Your task to perform on an android device: turn off data saver in the chrome app Image 0: 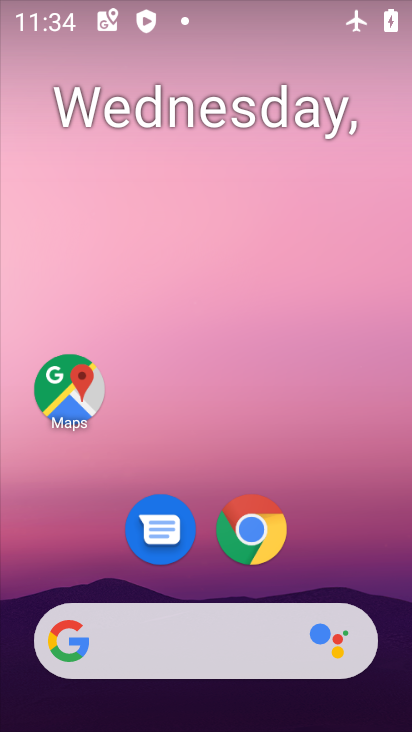
Step 0: click (233, 533)
Your task to perform on an android device: turn off data saver in the chrome app Image 1: 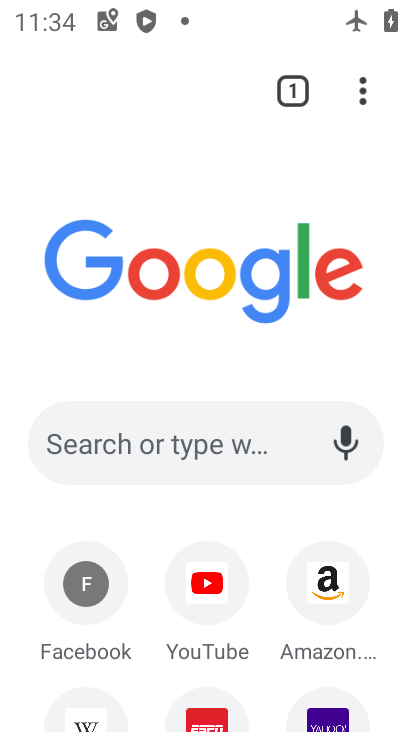
Step 1: click (364, 104)
Your task to perform on an android device: turn off data saver in the chrome app Image 2: 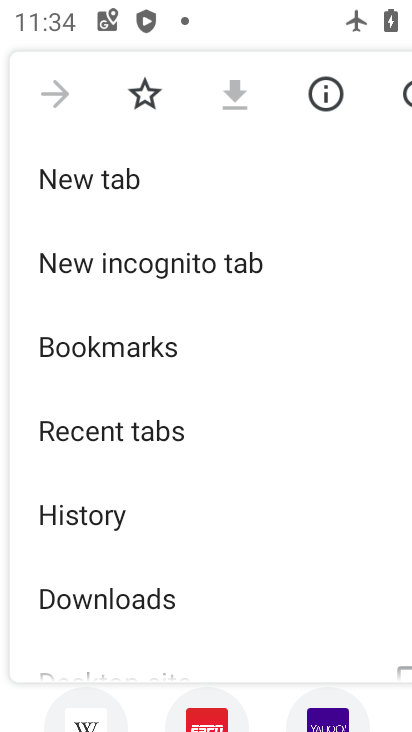
Step 2: drag from (227, 507) to (169, 120)
Your task to perform on an android device: turn off data saver in the chrome app Image 3: 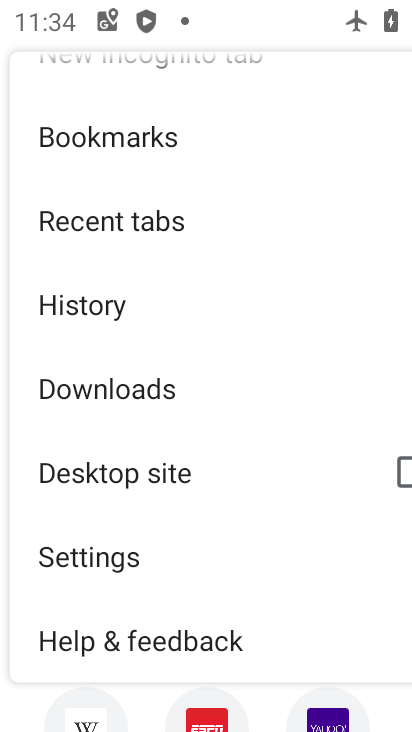
Step 3: click (108, 545)
Your task to perform on an android device: turn off data saver in the chrome app Image 4: 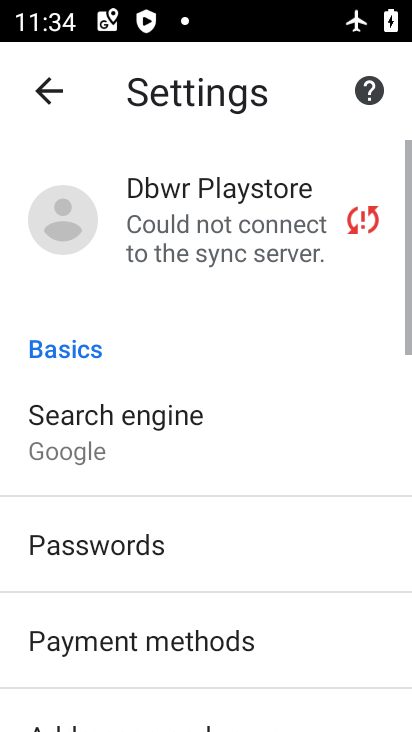
Step 4: drag from (106, 544) to (62, 147)
Your task to perform on an android device: turn off data saver in the chrome app Image 5: 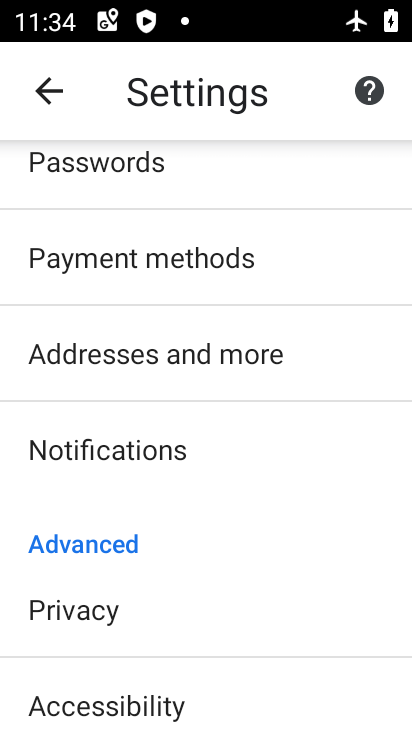
Step 5: drag from (145, 632) to (86, 195)
Your task to perform on an android device: turn off data saver in the chrome app Image 6: 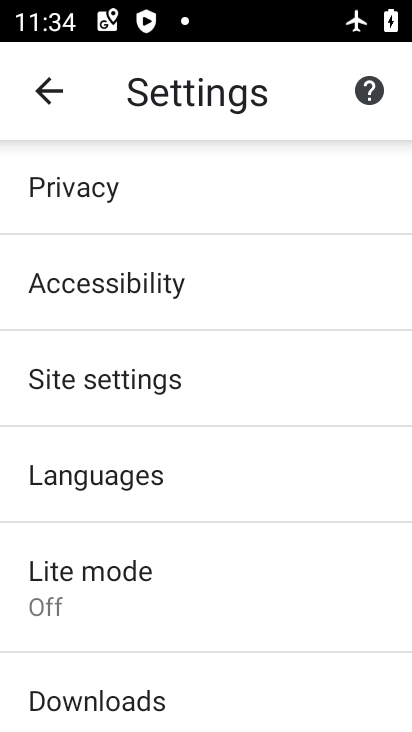
Step 6: click (162, 563)
Your task to perform on an android device: turn off data saver in the chrome app Image 7: 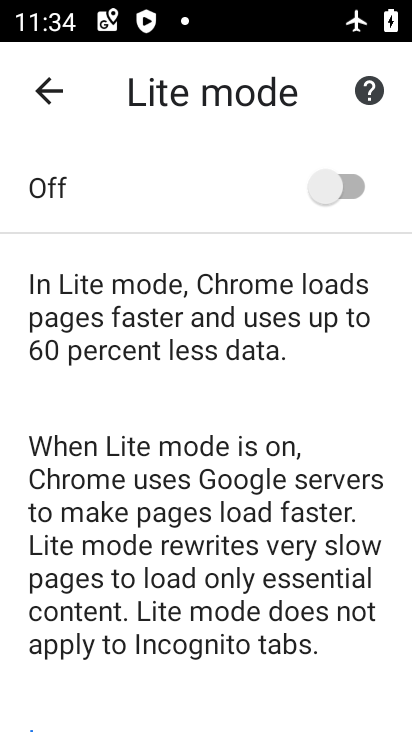
Step 7: task complete